Your task to perform on an android device: Open eBay Image 0: 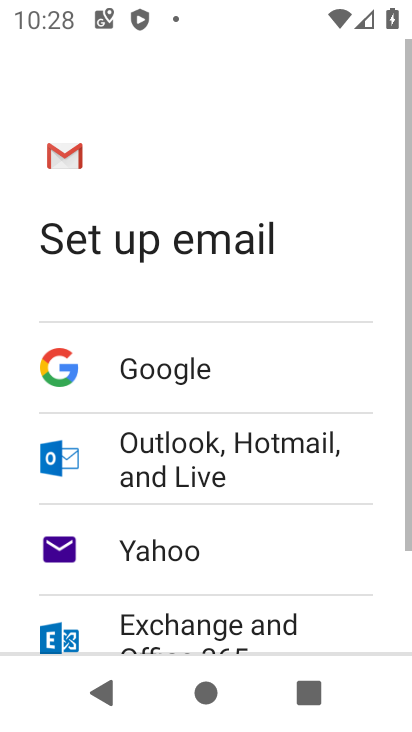
Step 0: drag from (226, 717) to (226, 185)
Your task to perform on an android device: Open eBay Image 1: 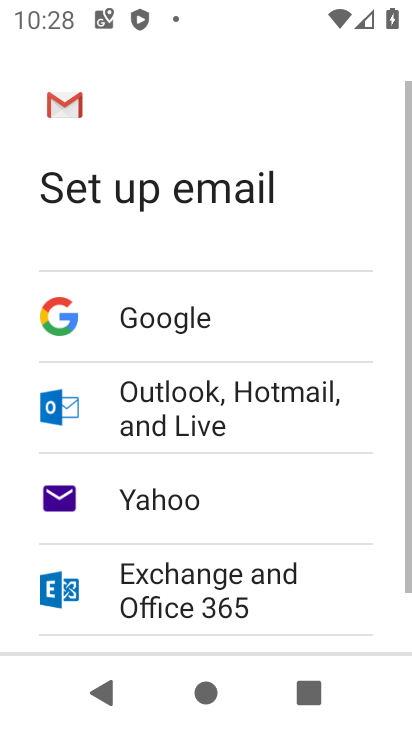
Step 1: press home button
Your task to perform on an android device: Open eBay Image 2: 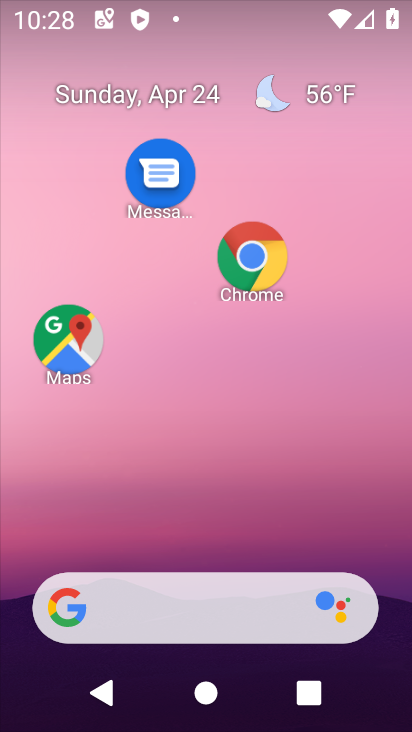
Step 2: drag from (224, 726) to (180, 99)
Your task to perform on an android device: Open eBay Image 3: 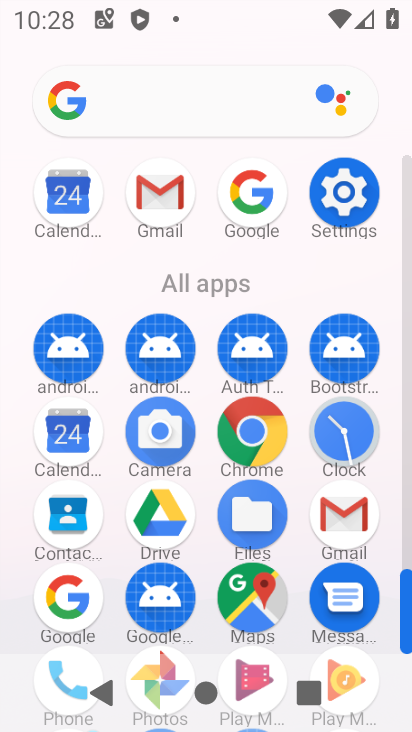
Step 3: click (245, 430)
Your task to perform on an android device: Open eBay Image 4: 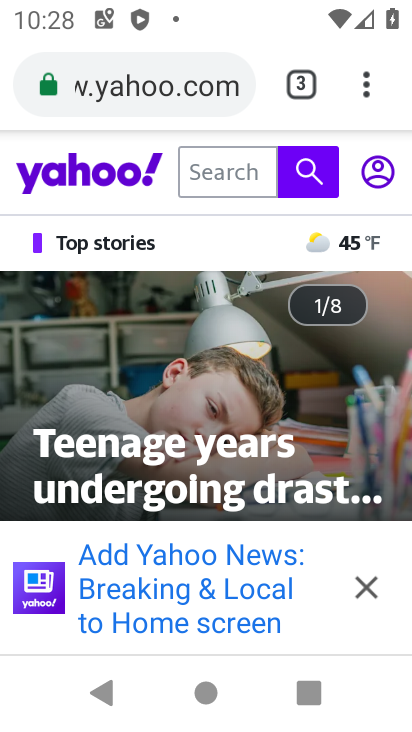
Step 4: drag from (365, 80) to (139, 281)
Your task to perform on an android device: Open eBay Image 5: 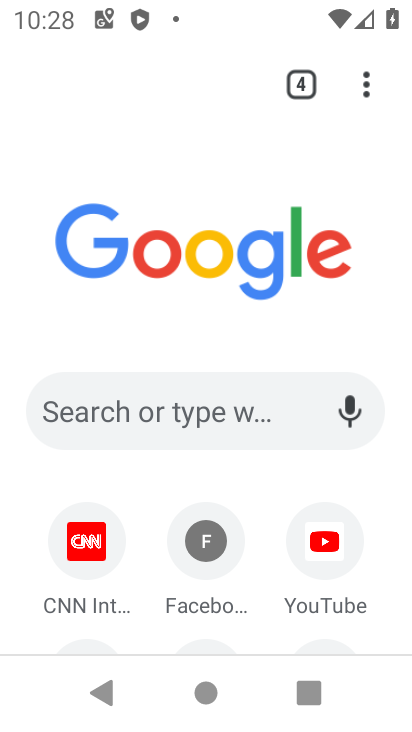
Step 5: click (193, 425)
Your task to perform on an android device: Open eBay Image 6: 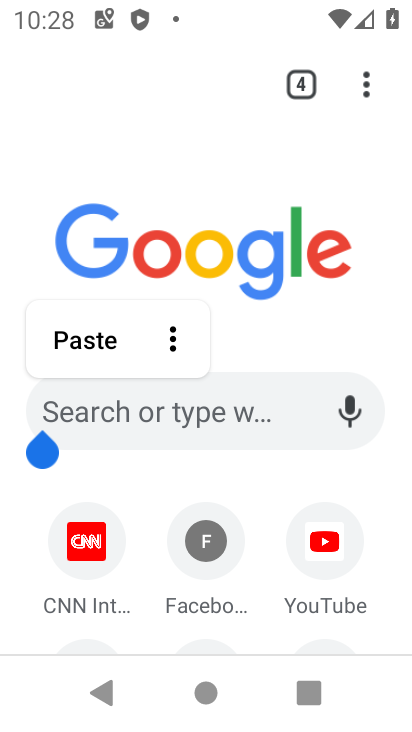
Step 6: click (95, 423)
Your task to perform on an android device: Open eBay Image 7: 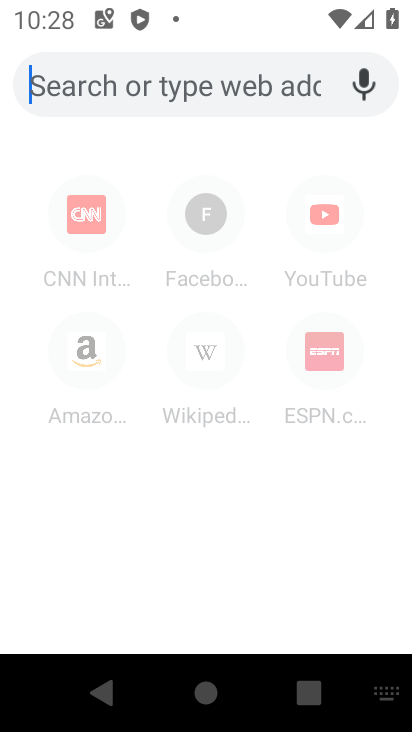
Step 7: type "eBay"
Your task to perform on an android device: Open eBay Image 8: 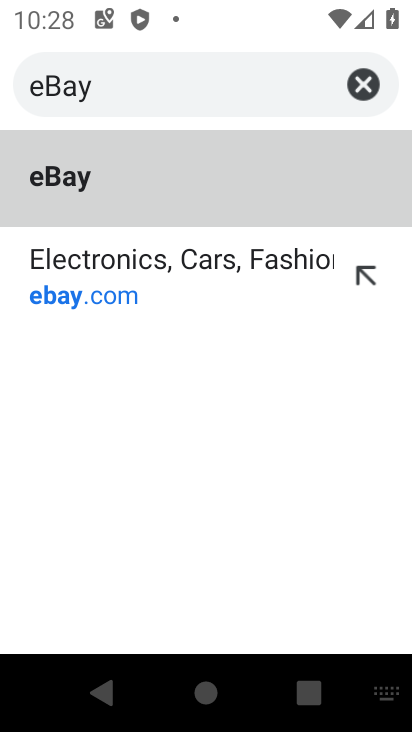
Step 8: click (92, 179)
Your task to perform on an android device: Open eBay Image 9: 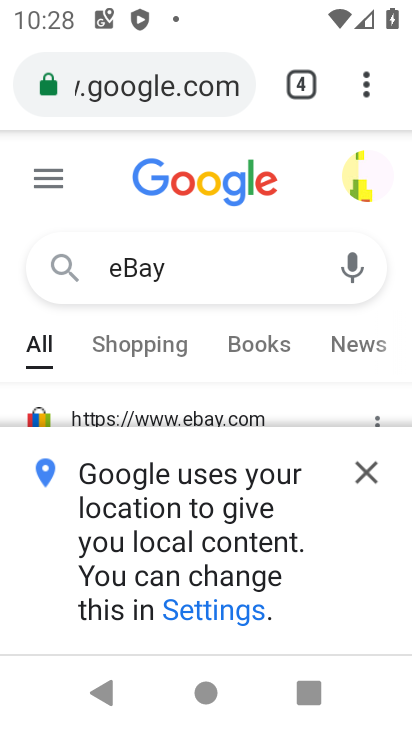
Step 9: click (136, 417)
Your task to perform on an android device: Open eBay Image 10: 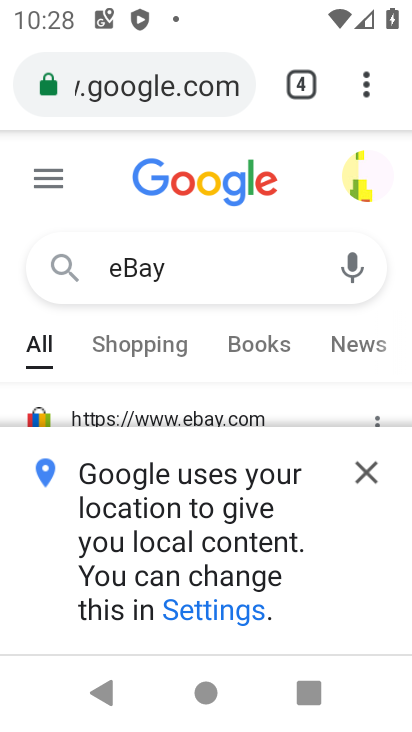
Step 10: click (134, 412)
Your task to perform on an android device: Open eBay Image 11: 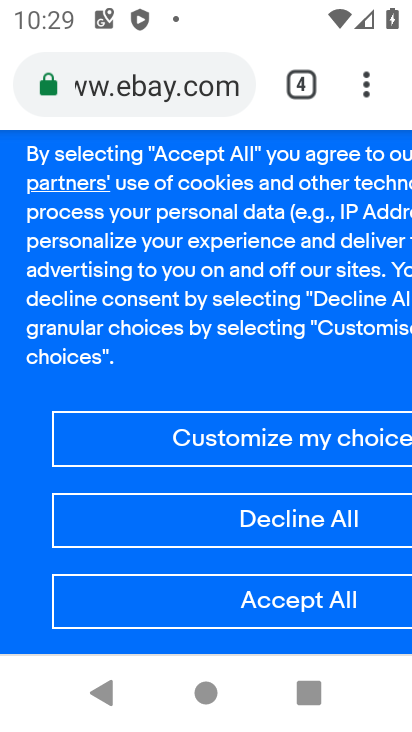
Step 11: task complete